Your task to perform on an android device: What's on my calendar today? Image 0: 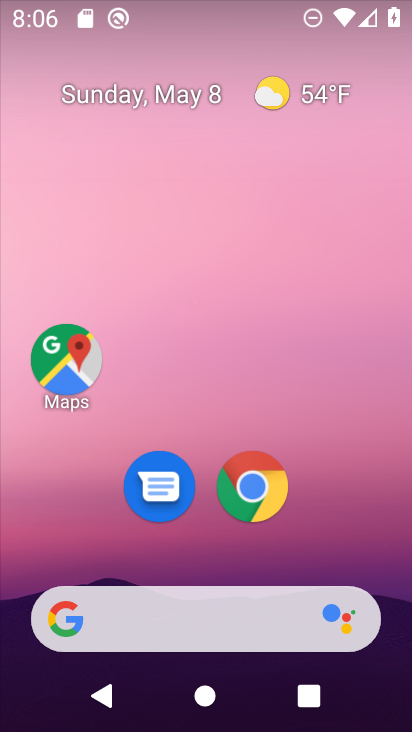
Step 0: drag from (195, 568) to (264, 213)
Your task to perform on an android device: What's on my calendar today? Image 1: 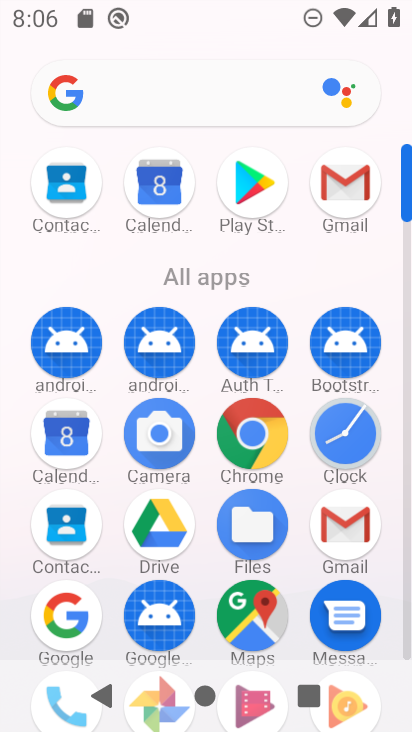
Step 1: click (70, 439)
Your task to perform on an android device: What's on my calendar today? Image 2: 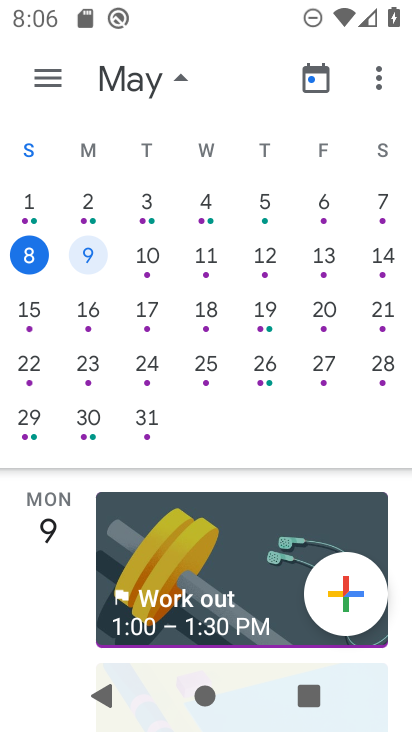
Step 2: task complete